Your task to perform on an android device: Open calendar and show me the third week of next month Image 0: 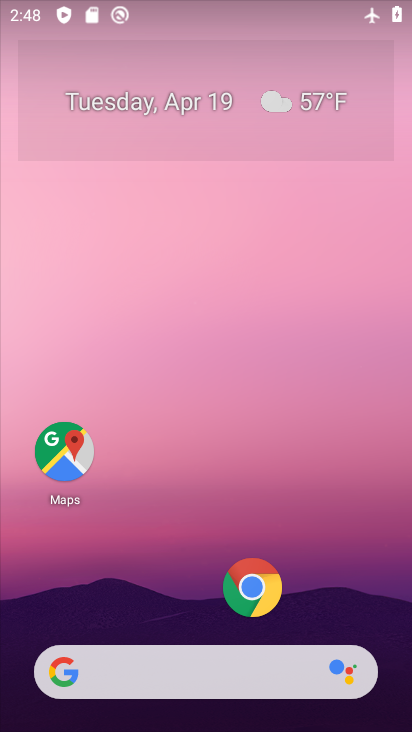
Step 0: drag from (142, 609) to (122, 130)
Your task to perform on an android device: Open calendar and show me the third week of next month Image 1: 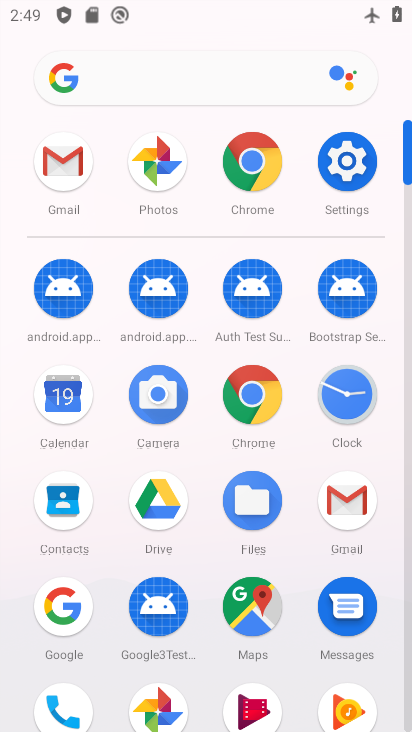
Step 1: click (61, 410)
Your task to perform on an android device: Open calendar and show me the third week of next month Image 2: 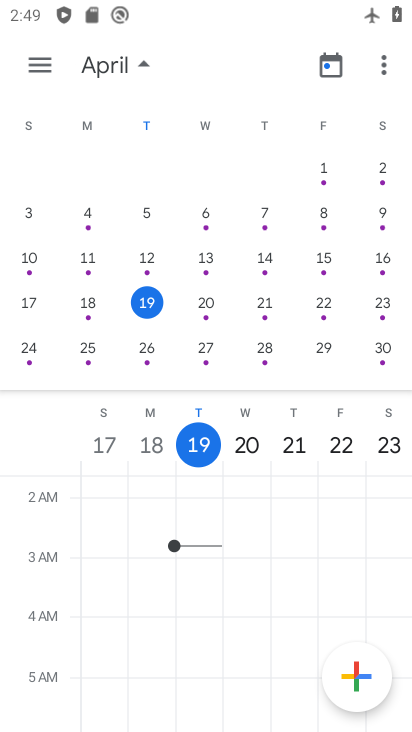
Step 2: drag from (386, 290) to (9, 164)
Your task to perform on an android device: Open calendar and show me the third week of next month Image 3: 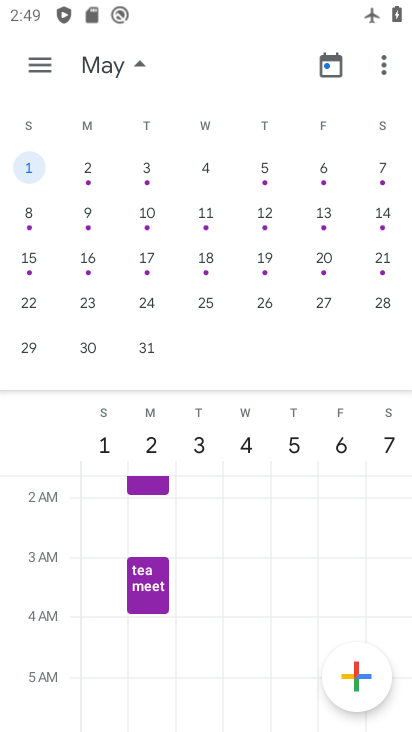
Step 3: click (31, 66)
Your task to perform on an android device: Open calendar and show me the third week of next month Image 4: 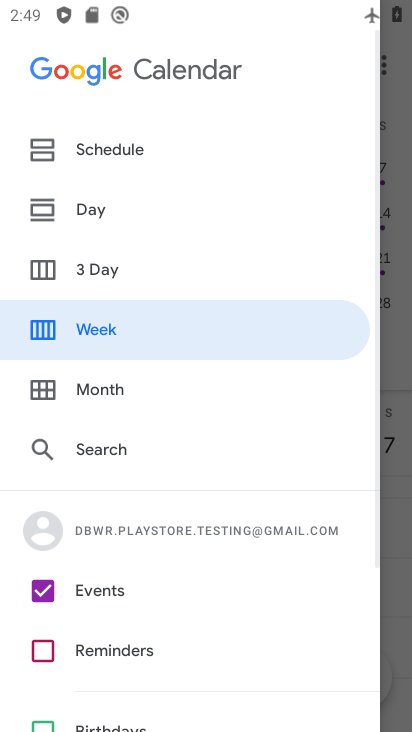
Step 4: click (108, 336)
Your task to perform on an android device: Open calendar and show me the third week of next month Image 5: 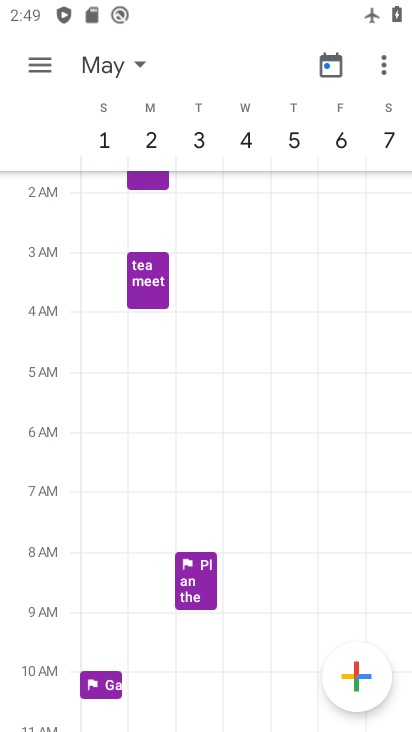
Step 5: task complete